Your task to perform on an android device: toggle sleep mode Image 0: 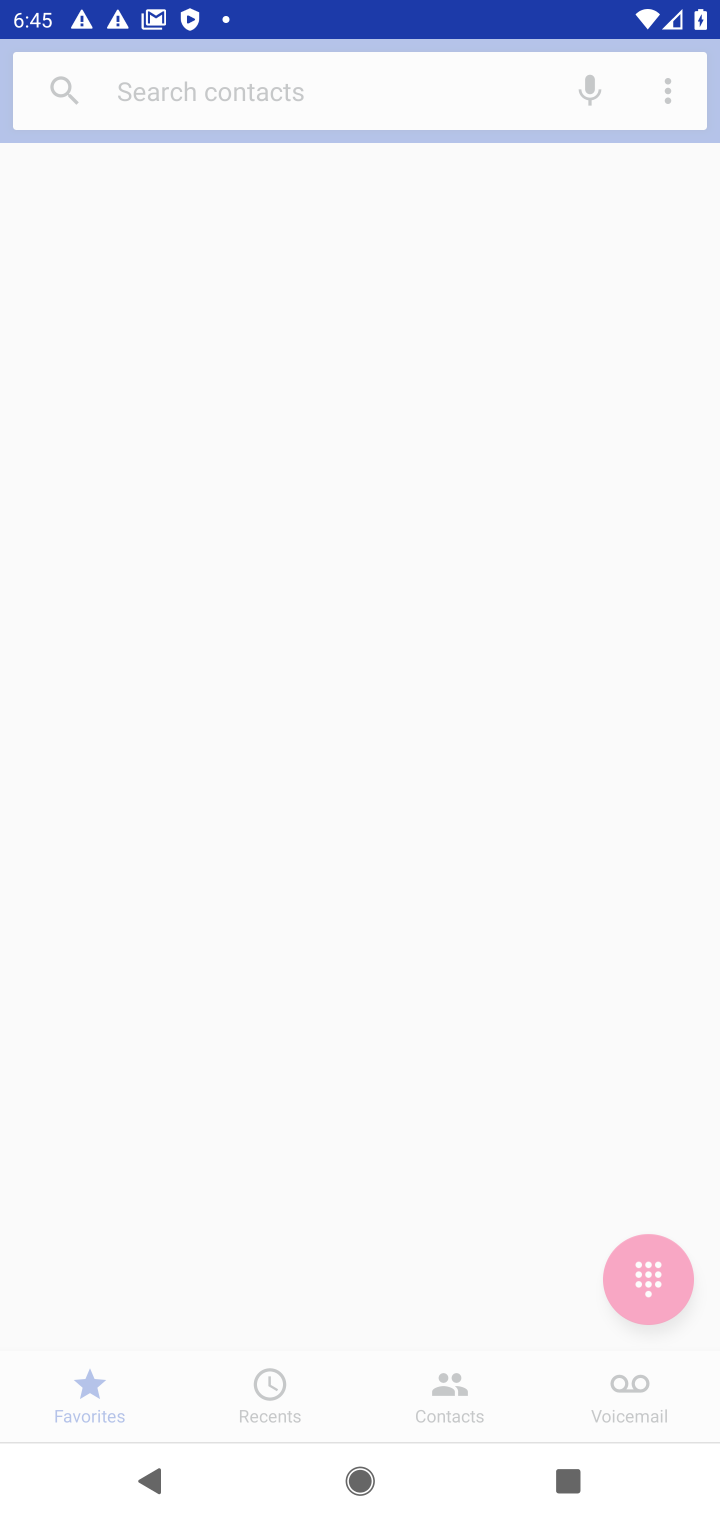
Step 0: press home button
Your task to perform on an android device: toggle sleep mode Image 1: 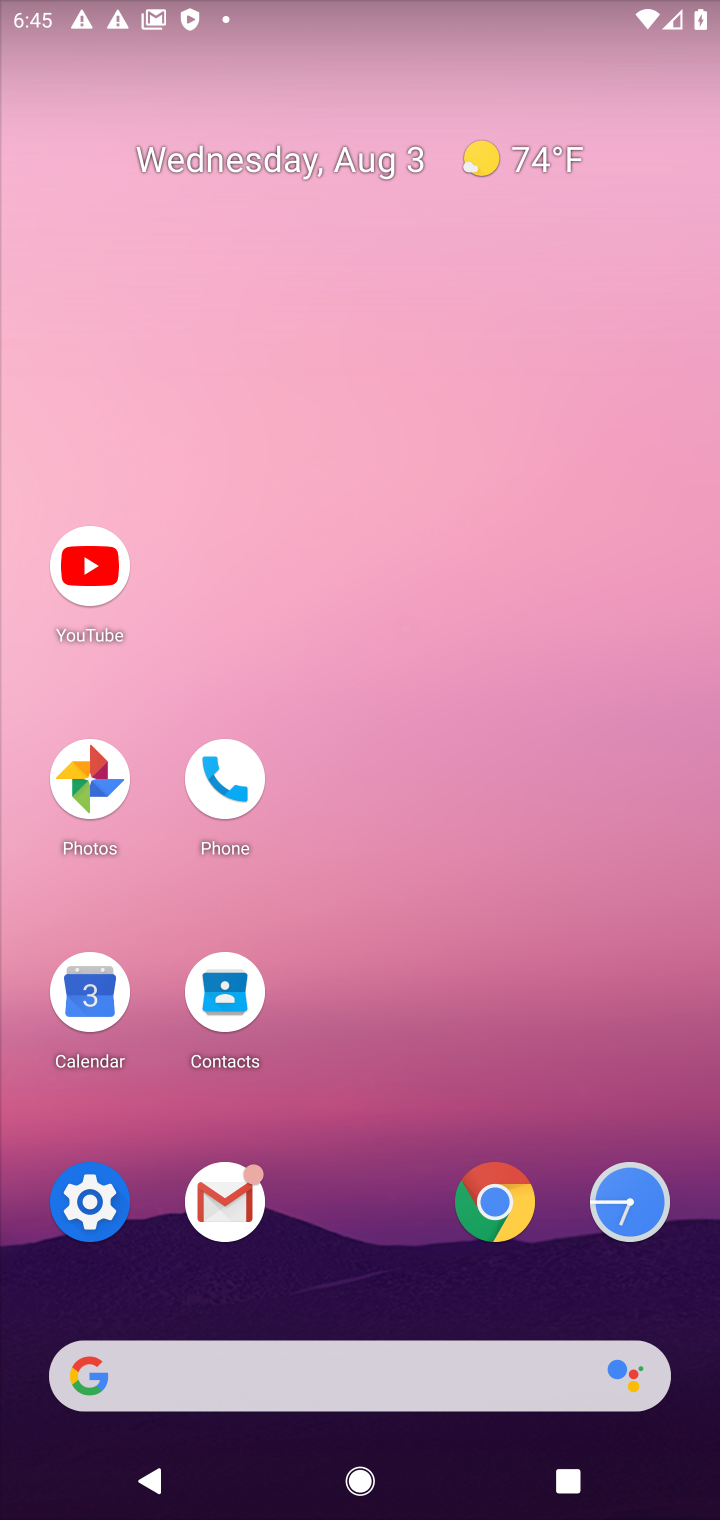
Step 1: click (79, 1209)
Your task to perform on an android device: toggle sleep mode Image 2: 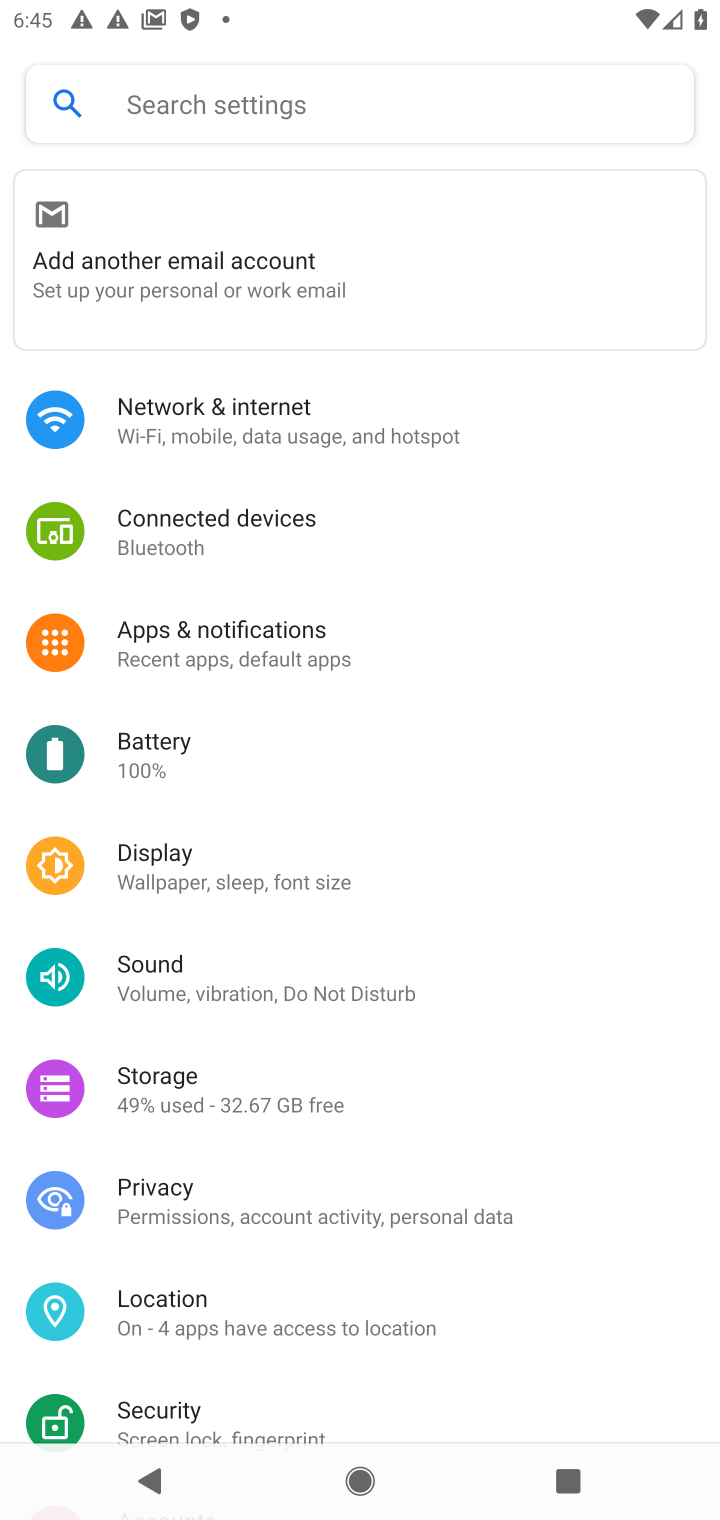
Step 2: click (182, 866)
Your task to perform on an android device: toggle sleep mode Image 3: 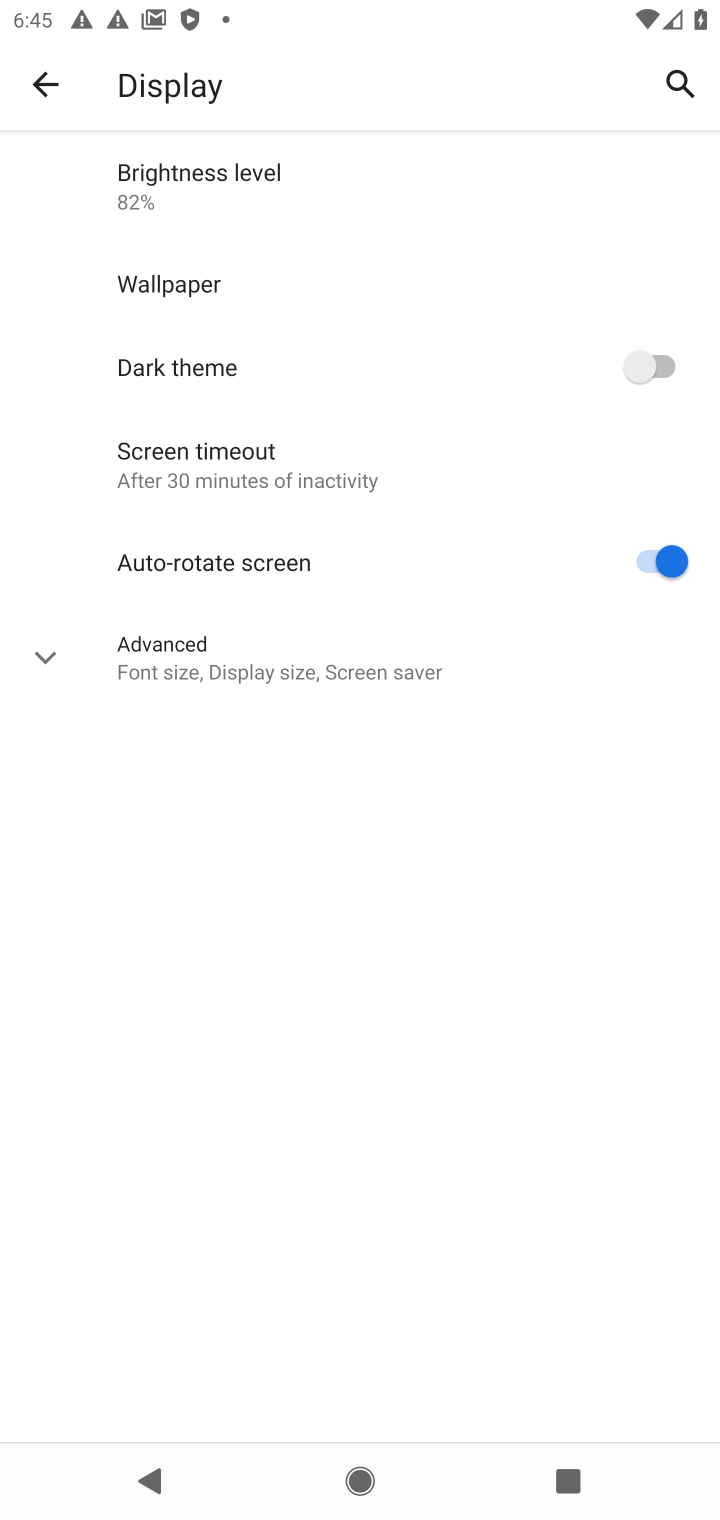
Step 3: task complete